Your task to perform on an android device: allow notifications from all sites in the chrome app Image 0: 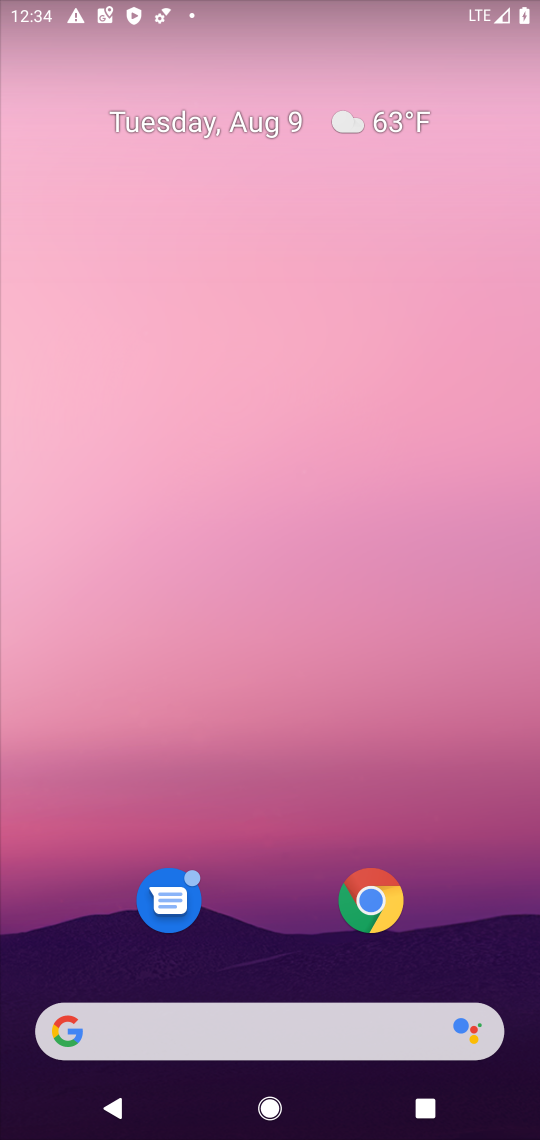
Step 0: press home button
Your task to perform on an android device: allow notifications from all sites in the chrome app Image 1: 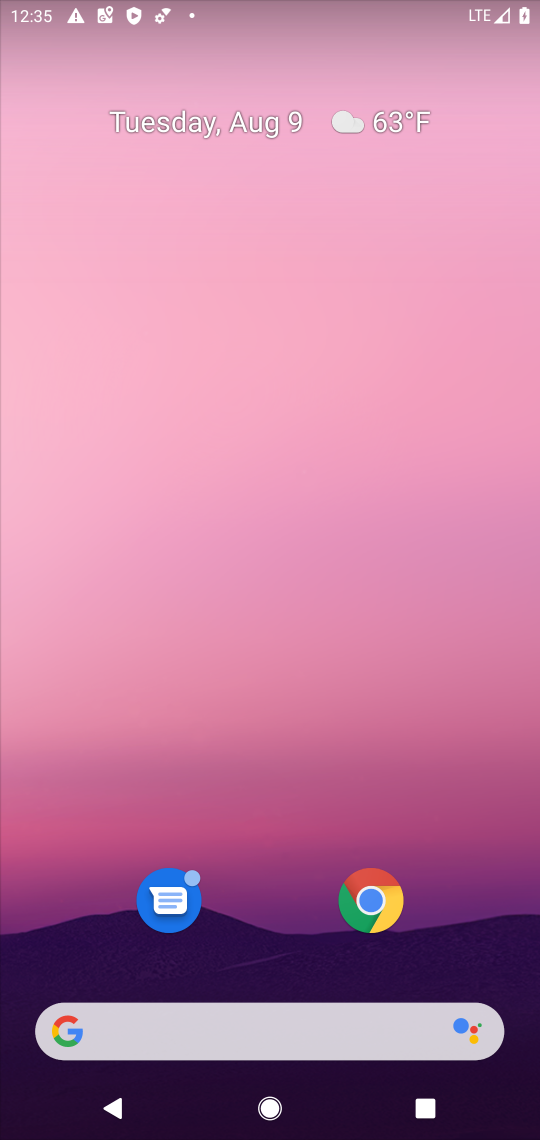
Step 1: drag from (445, 909) to (492, 182)
Your task to perform on an android device: allow notifications from all sites in the chrome app Image 2: 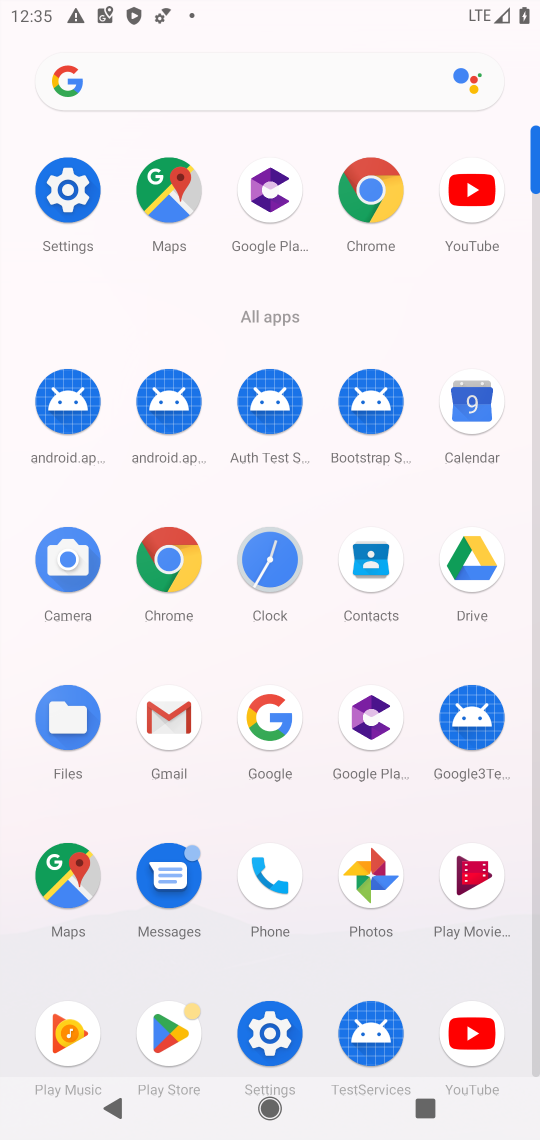
Step 2: click (165, 572)
Your task to perform on an android device: allow notifications from all sites in the chrome app Image 3: 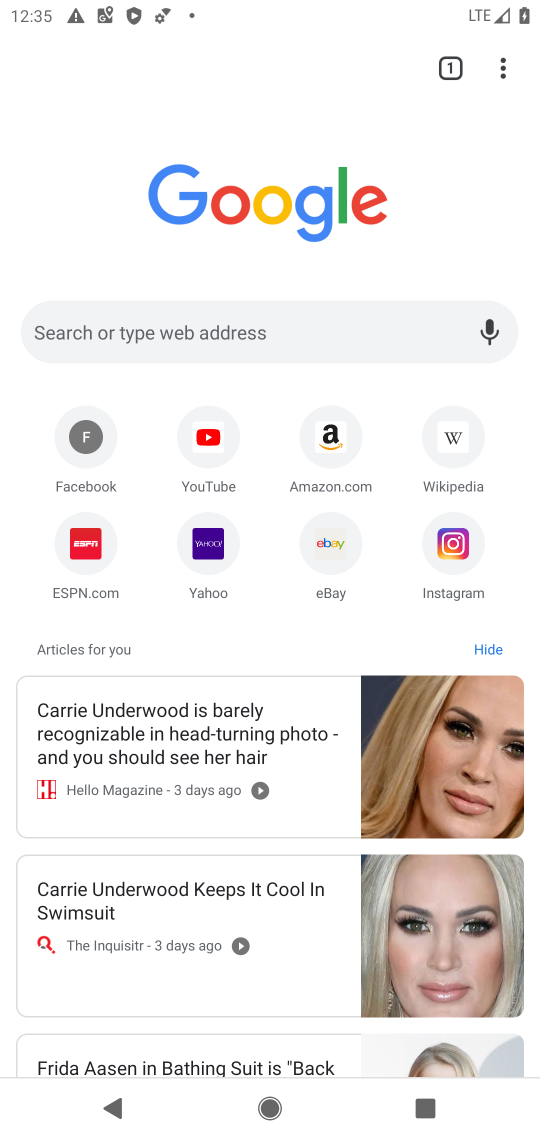
Step 3: click (501, 60)
Your task to perform on an android device: allow notifications from all sites in the chrome app Image 4: 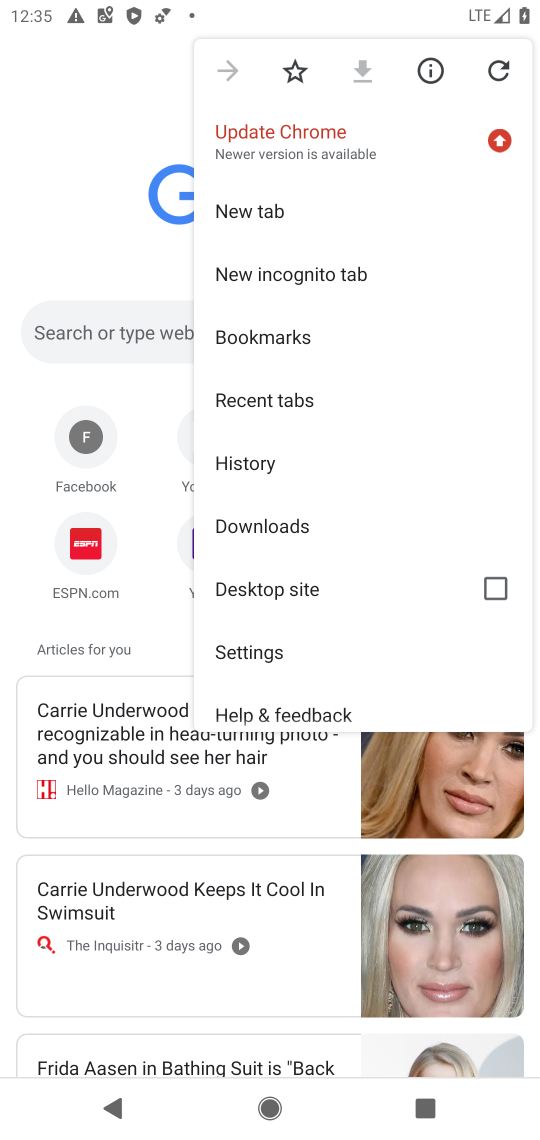
Step 4: click (261, 654)
Your task to perform on an android device: allow notifications from all sites in the chrome app Image 5: 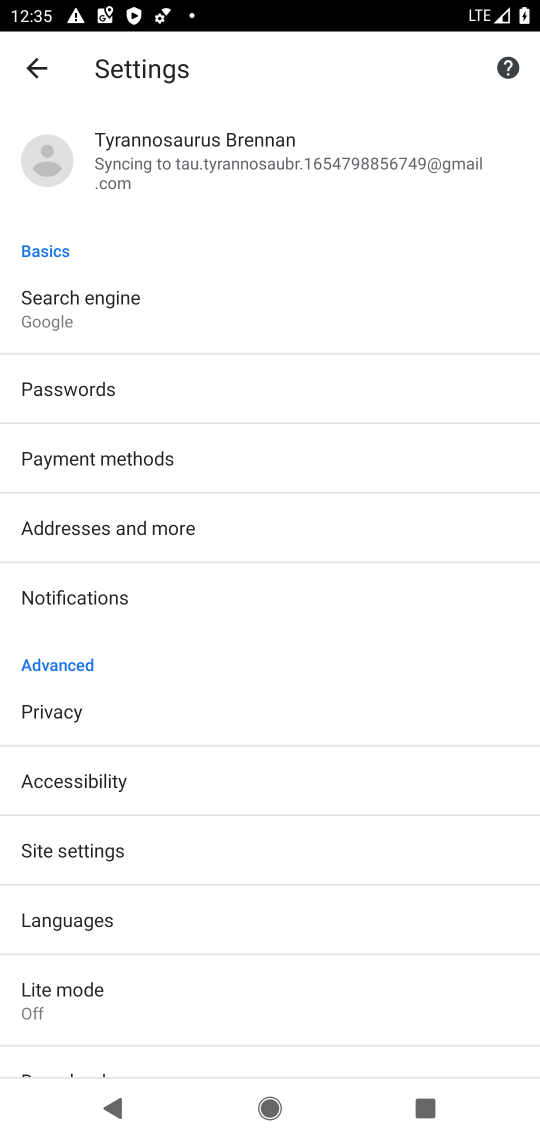
Step 5: drag from (385, 715) to (430, 470)
Your task to perform on an android device: allow notifications from all sites in the chrome app Image 6: 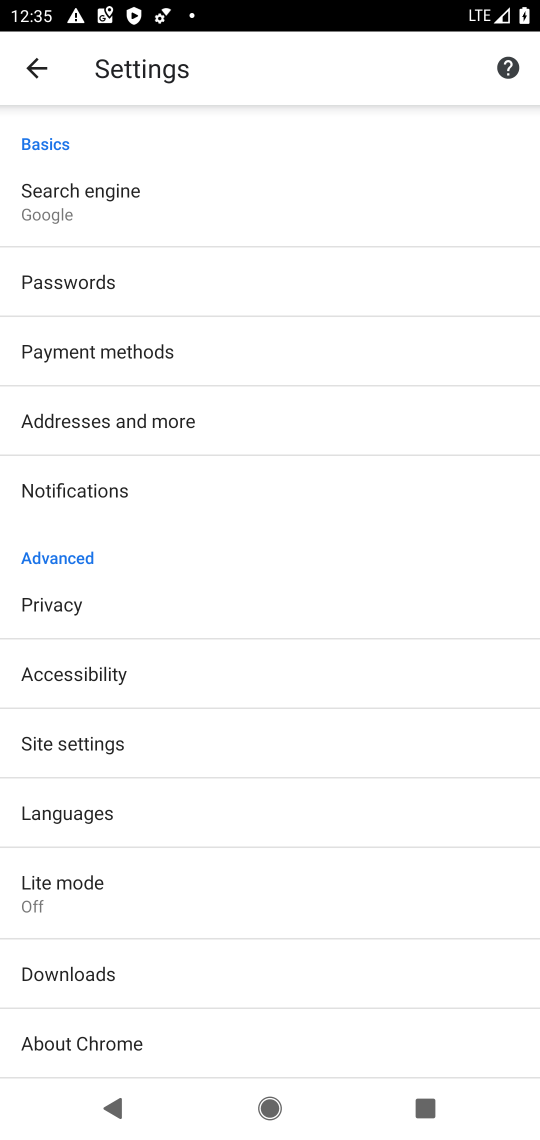
Step 6: drag from (410, 784) to (419, 616)
Your task to perform on an android device: allow notifications from all sites in the chrome app Image 7: 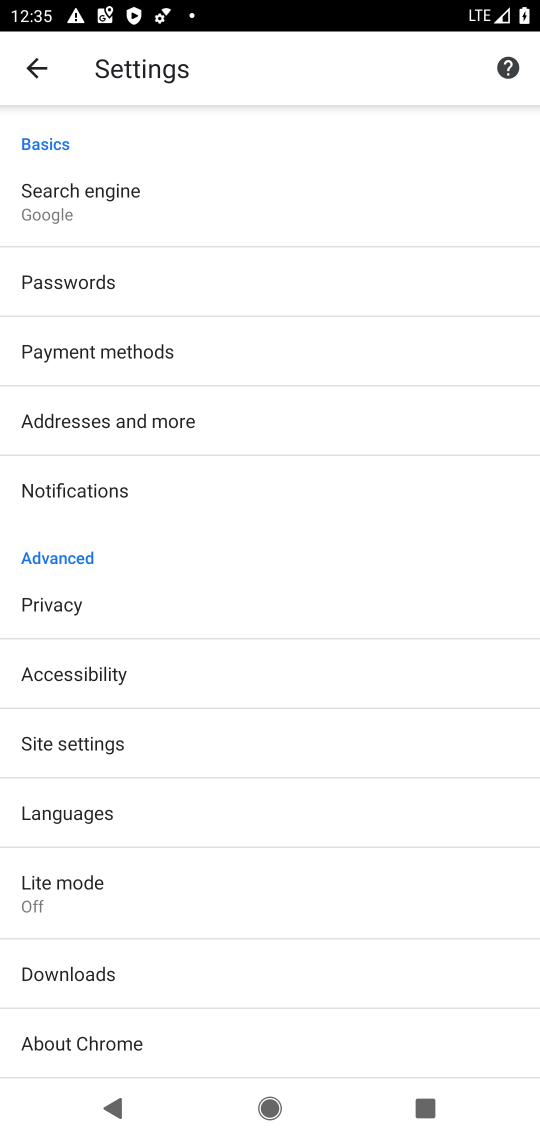
Step 7: click (379, 739)
Your task to perform on an android device: allow notifications from all sites in the chrome app Image 8: 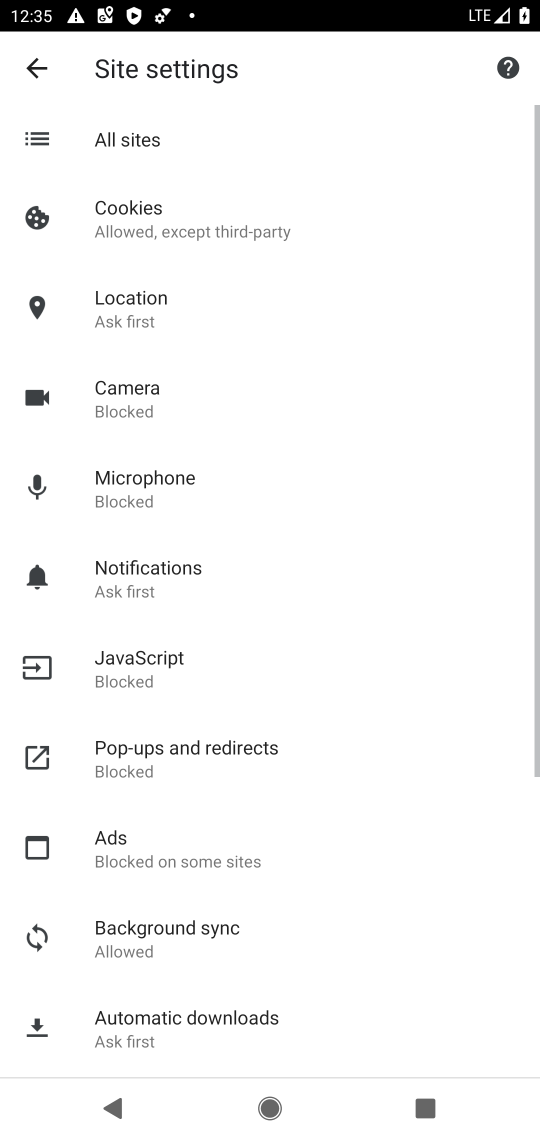
Step 8: drag from (398, 768) to (433, 516)
Your task to perform on an android device: allow notifications from all sites in the chrome app Image 9: 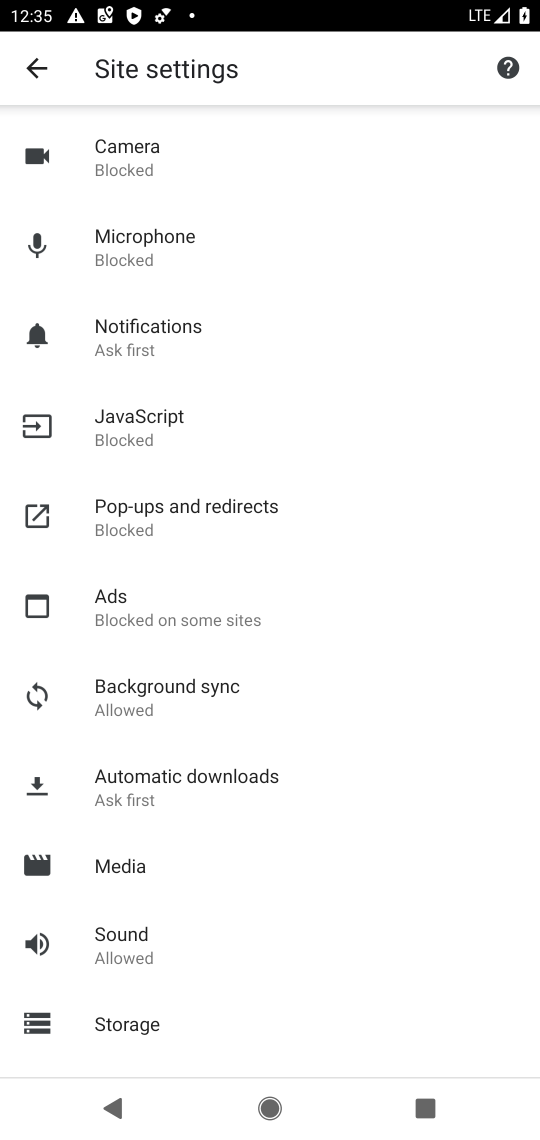
Step 9: drag from (391, 780) to (425, 558)
Your task to perform on an android device: allow notifications from all sites in the chrome app Image 10: 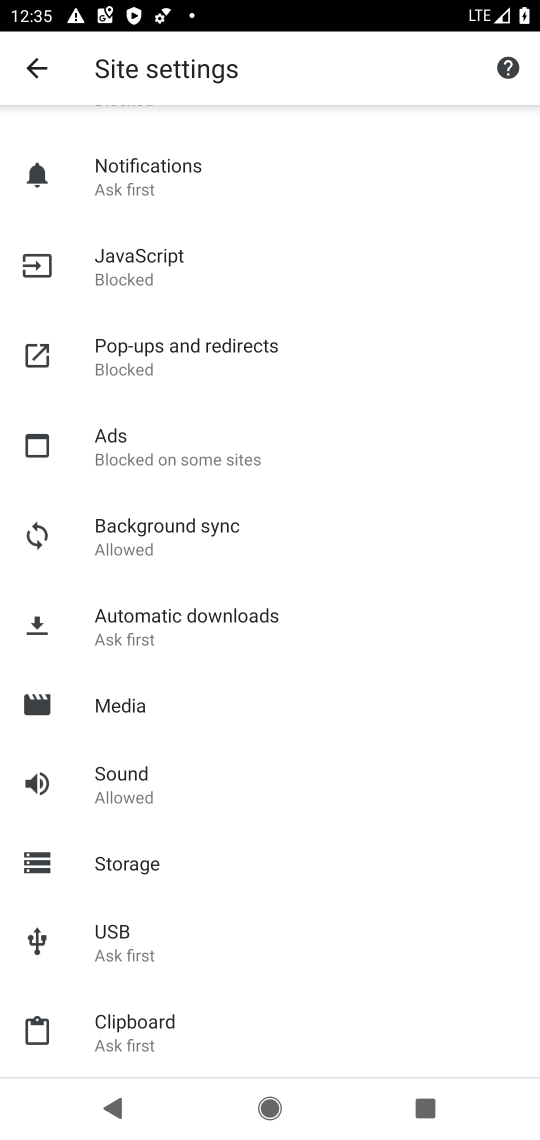
Step 10: drag from (398, 755) to (415, 558)
Your task to perform on an android device: allow notifications from all sites in the chrome app Image 11: 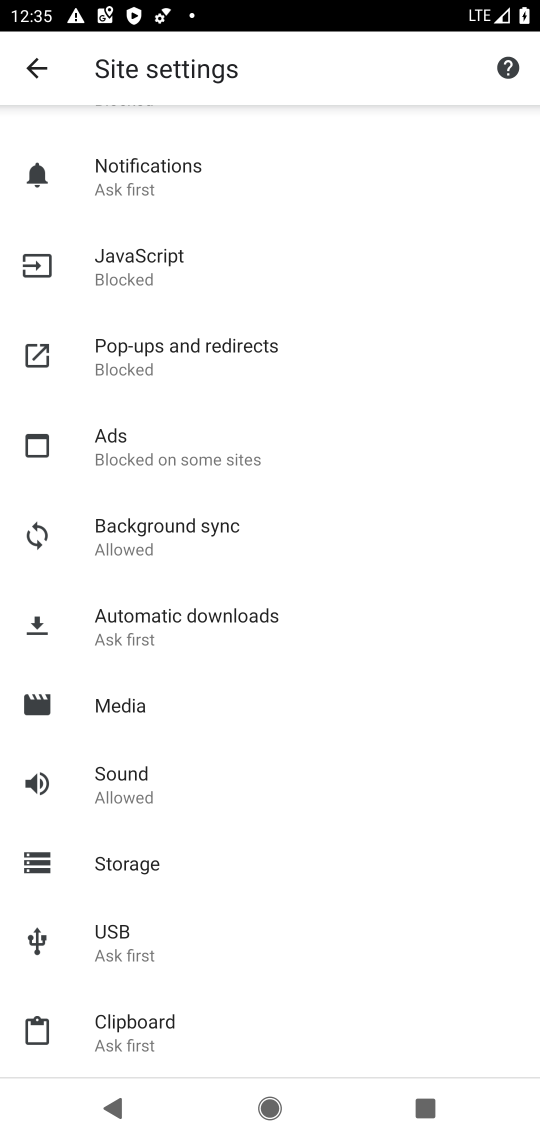
Step 11: drag from (404, 394) to (407, 540)
Your task to perform on an android device: allow notifications from all sites in the chrome app Image 12: 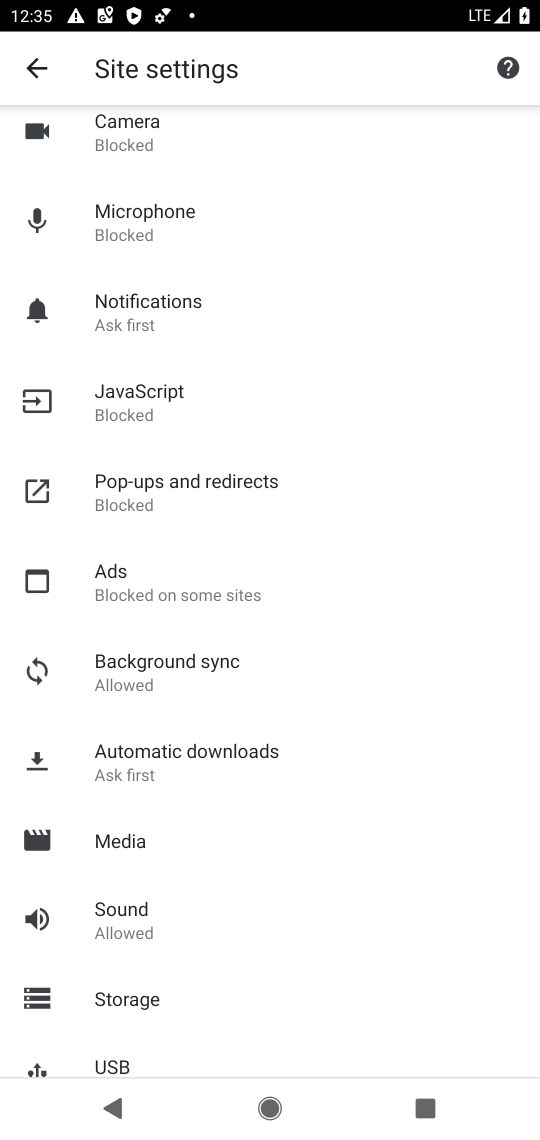
Step 12: drag from (409, 336) to (416, 555)
Your task to perform on an android device: allow notifications from all sites in the chrome app Image 13: 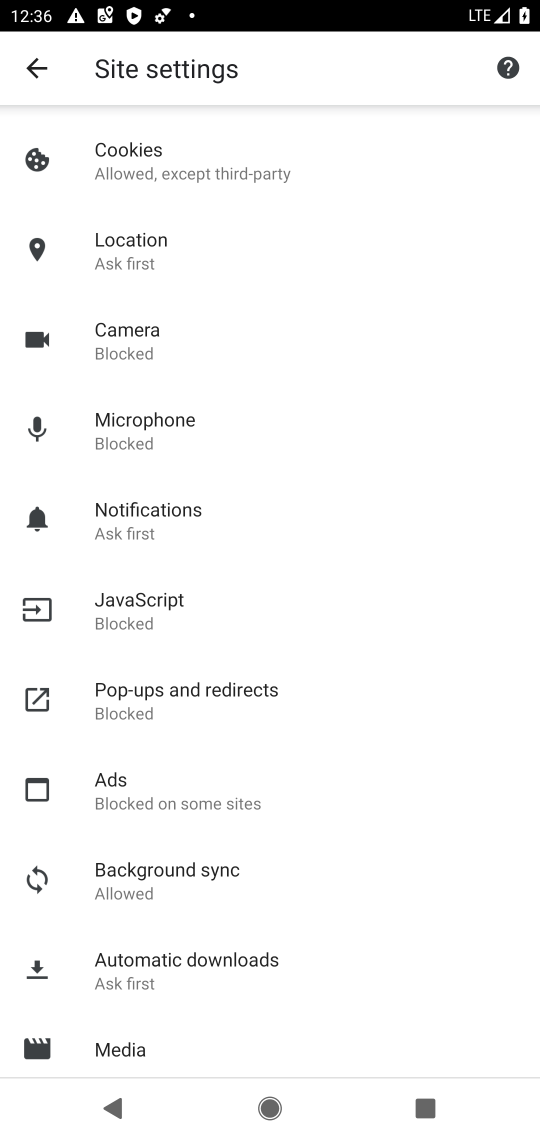
Step 13: drag from (415, 258) to (405, 528)
Your task to perform on an android device: allow notifications from all sites in the chrome app Image 14: 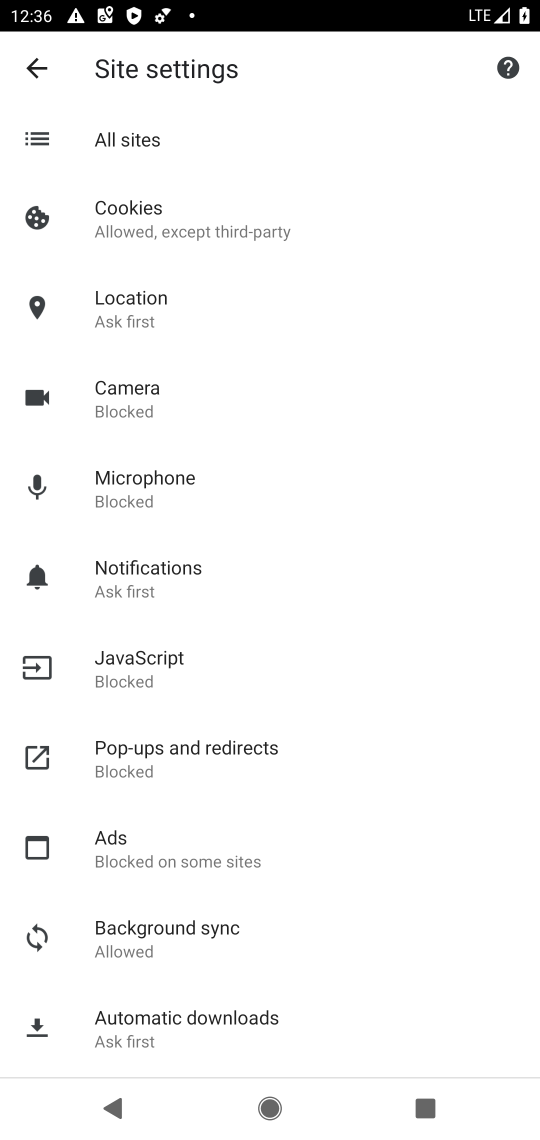
Step 14: click (141, 582)
Your task to perform on an android device: allow notifications from all sites in the chrome app Image 15: 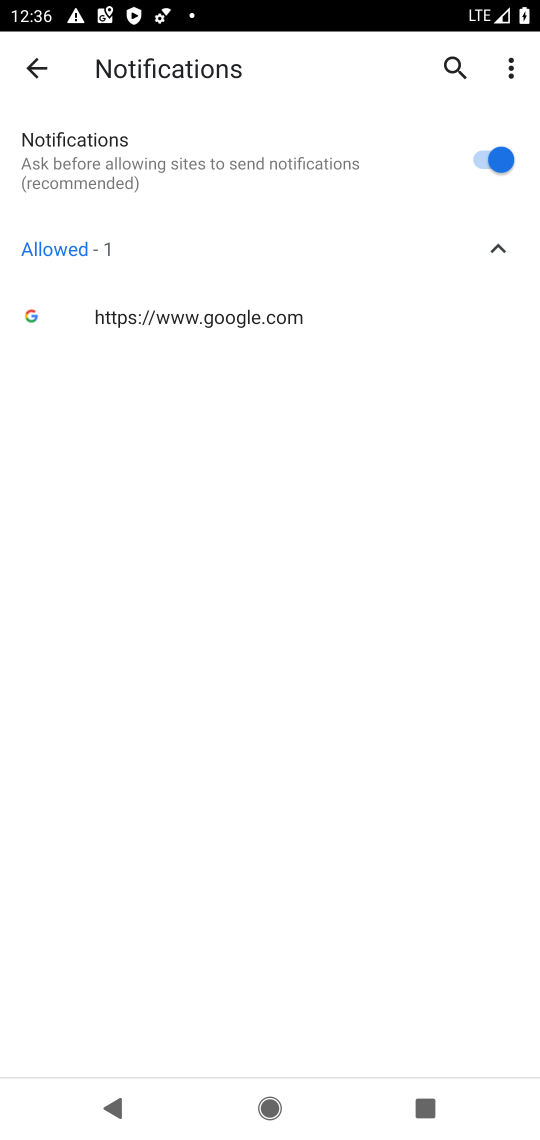
Step 15: task complete